Your task to perform on an android device: toggle location history Image 0: 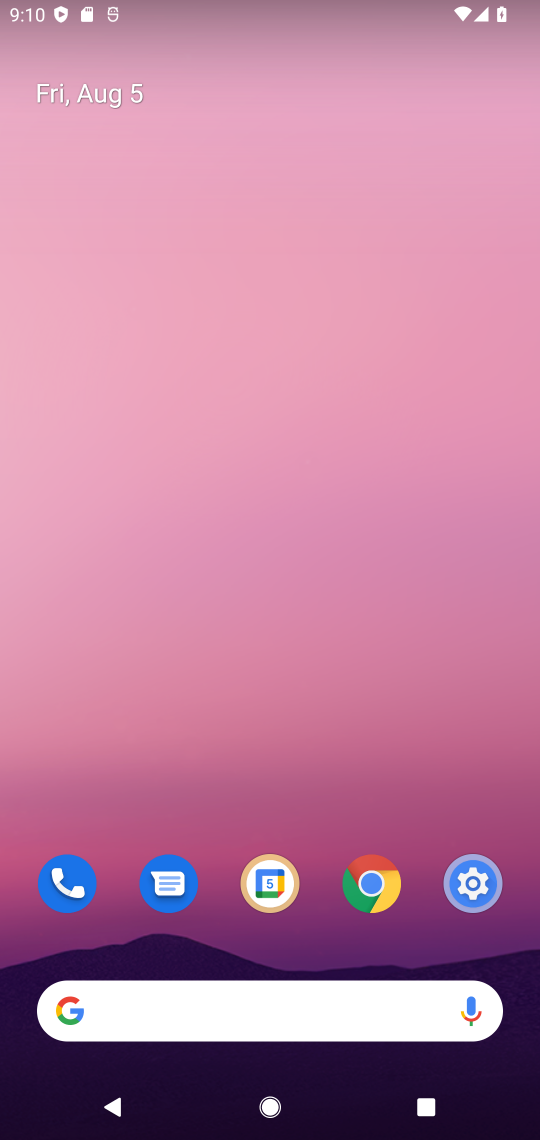
Step 0: drag from (286, 954) to (357, 314)
Your task to perform on an android device: toggle location history Image 1: 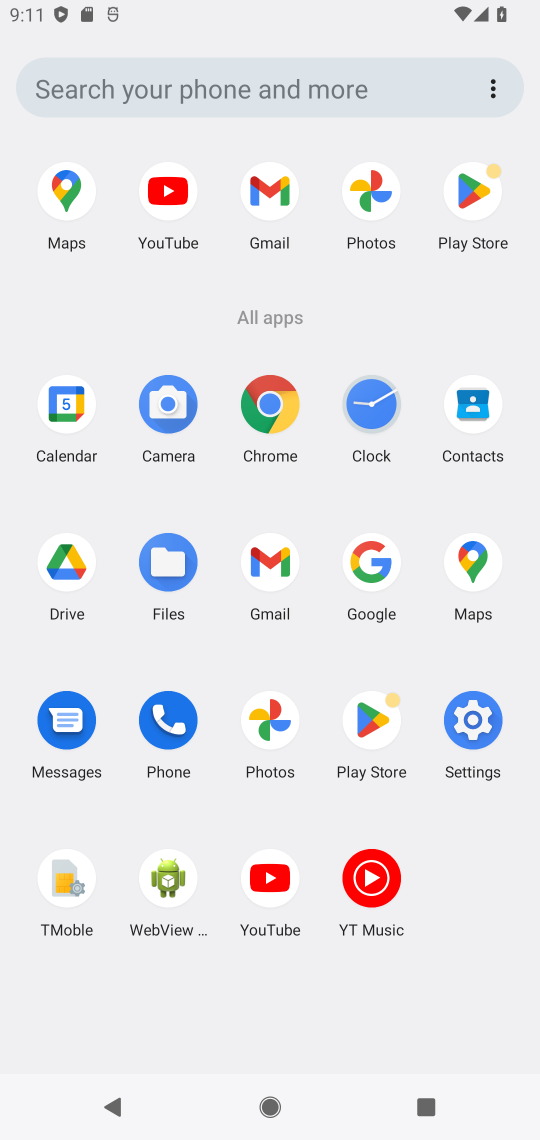
Step 1: click (479, 730)
Your task to perform on an android device: toggle location history Image 2: 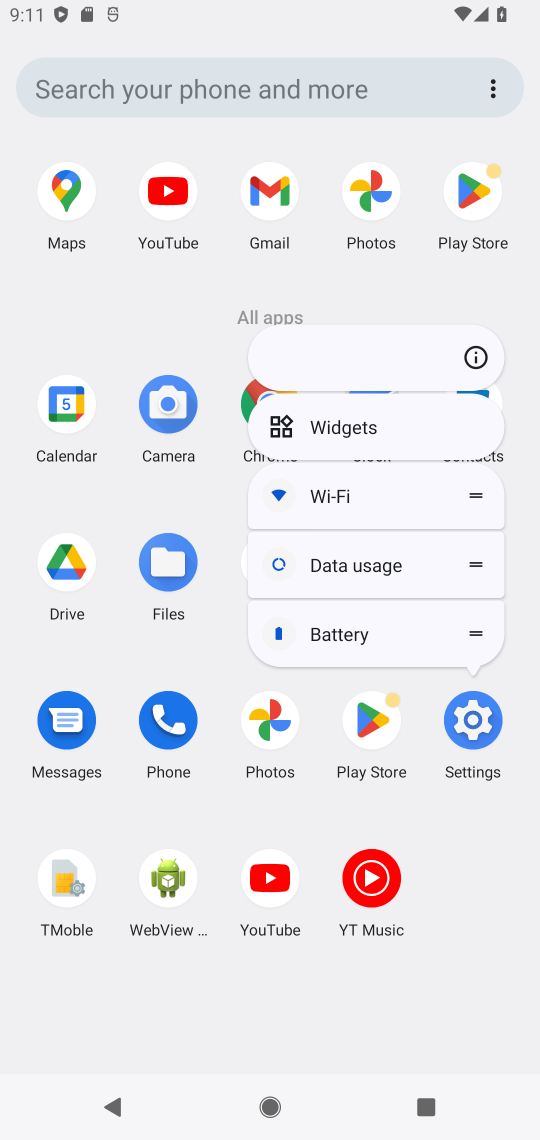
Step 2: click (460, 737)
Your task to perform on an android device: toggle location history Image 3: 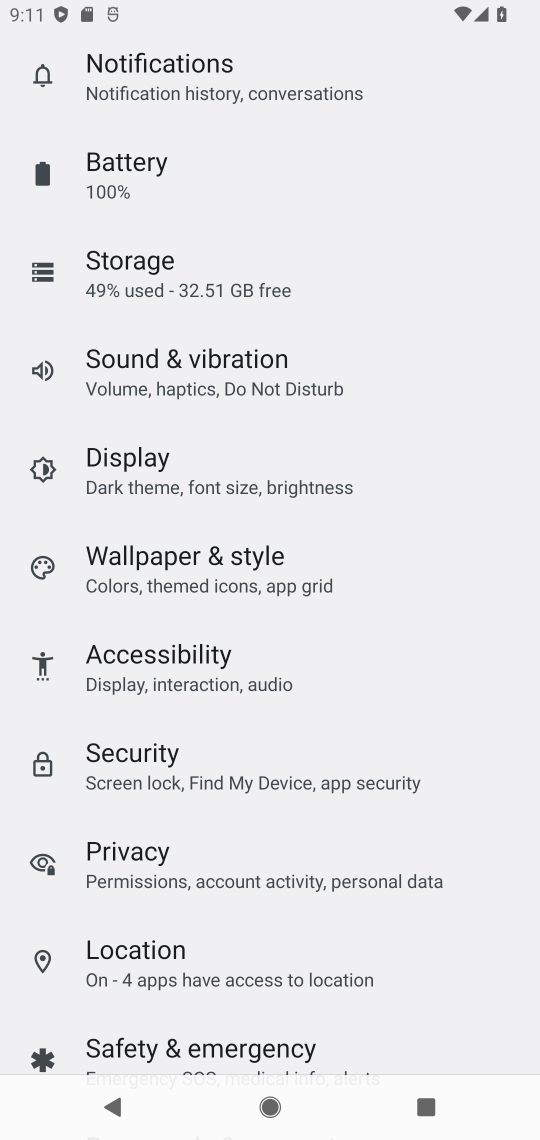
Step 3: click (131, 963)
Your task to perform on an android device: toggle location history Image 4: 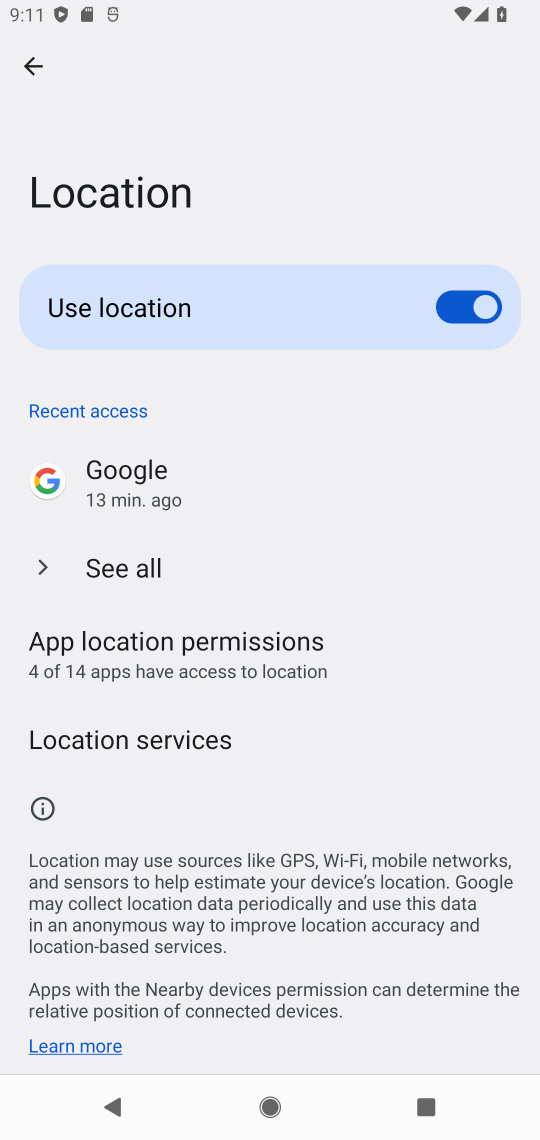
Step 4: click (117, 735)
Your task to perform on an android device: toggle location history Image 5: 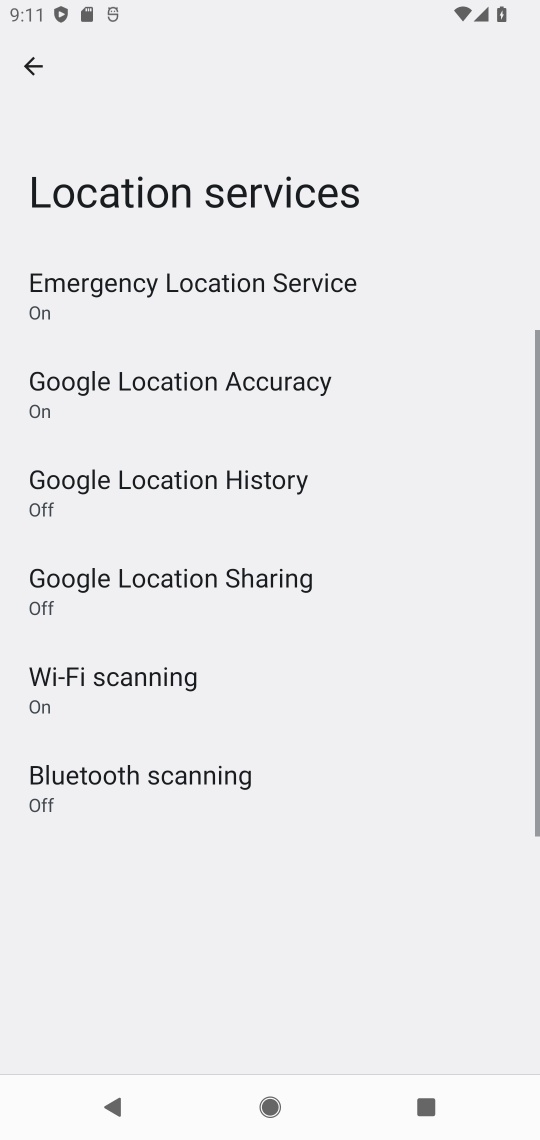
Step 5: click (197, 471)
Your task to perform on an android device: toggle location history Image 6: 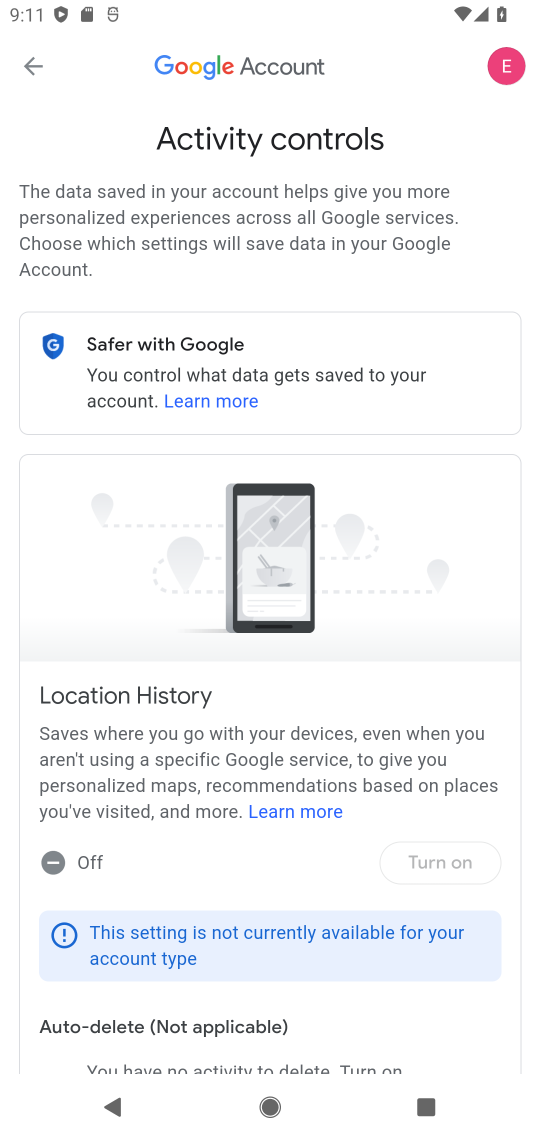
Step 6: task complete